Your task to perform on an android device: Open the calendar and show me this week's events? Image 0: 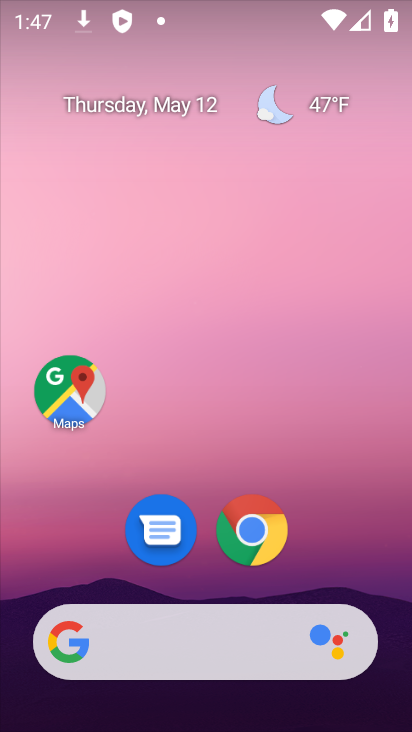
Step 0: drag from (37, 622) to (326, 158)
Your task to perform on an android device: Open the calendar and show me this week's events? Image 1: 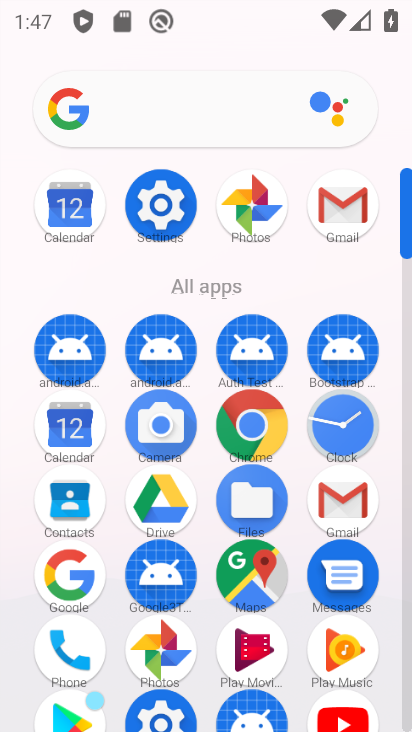
Step 1: click (69, 436)
Your task to perform on an android device: Open the calendar and show me this week's events? Image 2: 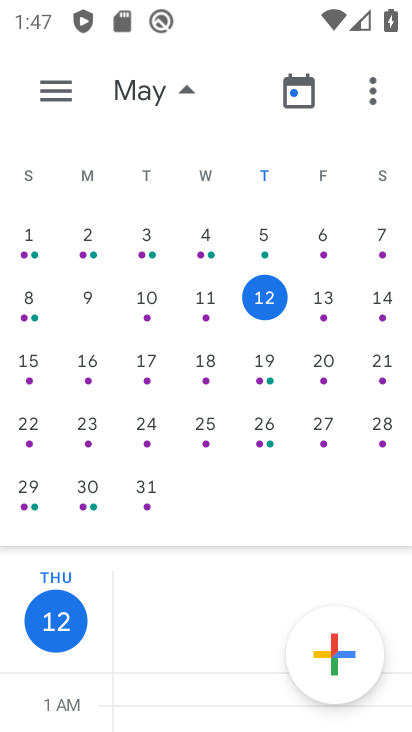
Step 2: click (327, 297)
Your task to perform on an android device: Open the calendar and show me this week's events? Image 3: 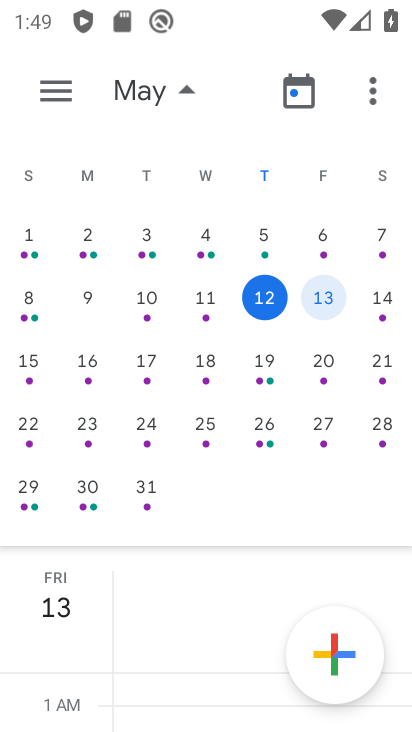
Step 3: task complete